Your task to perform on an android device: What's the weather going to be this weekend? Image 0: 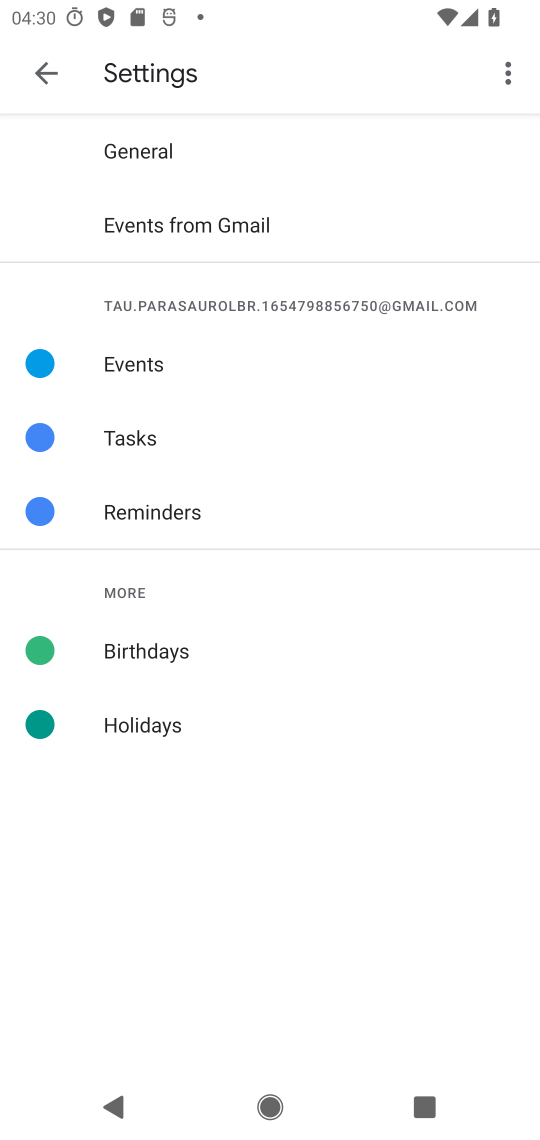
Step 0: press home button
Your task to perform on an android device: What's the weather going to be this weekend? Image 1: 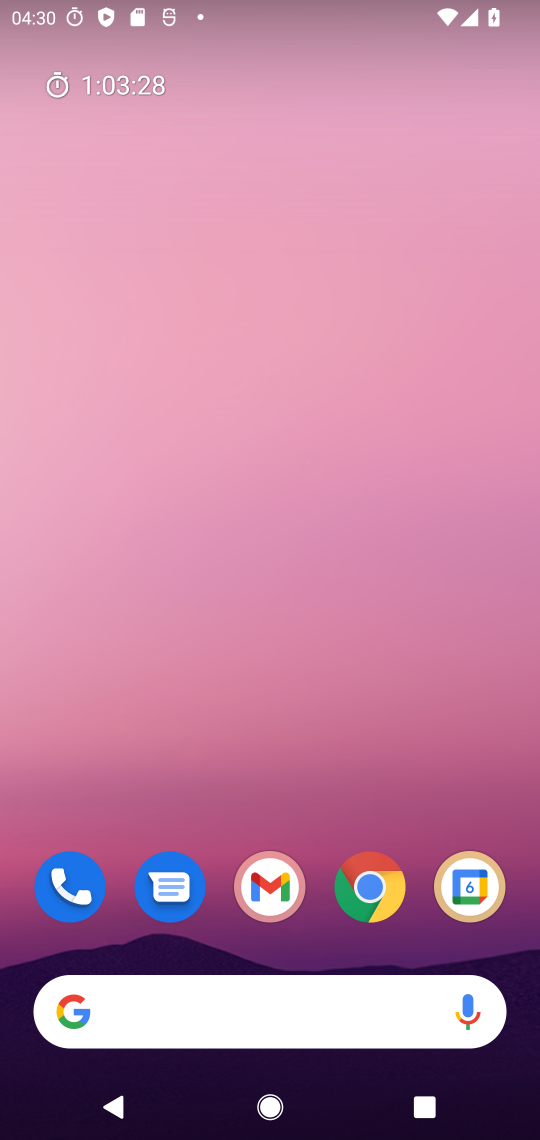
Step 1: click (322, 1009)
Your task to perform on an android device: What's the weather going to be this weekend? Image 2: 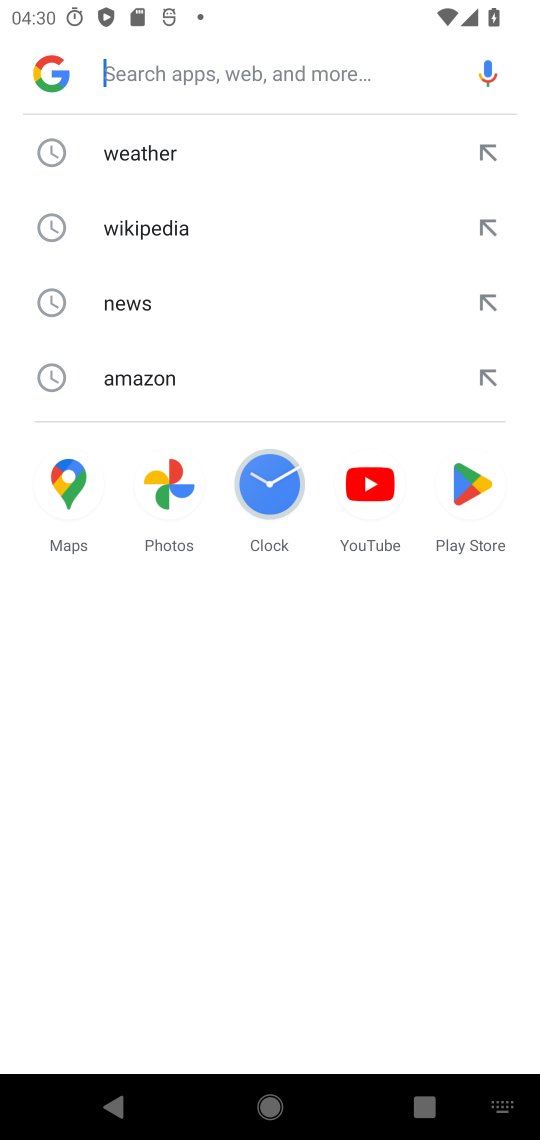
Step 2: click (171, 155)
Your task to perform on an android device: What's the weather going to be this weekend? Image 3: 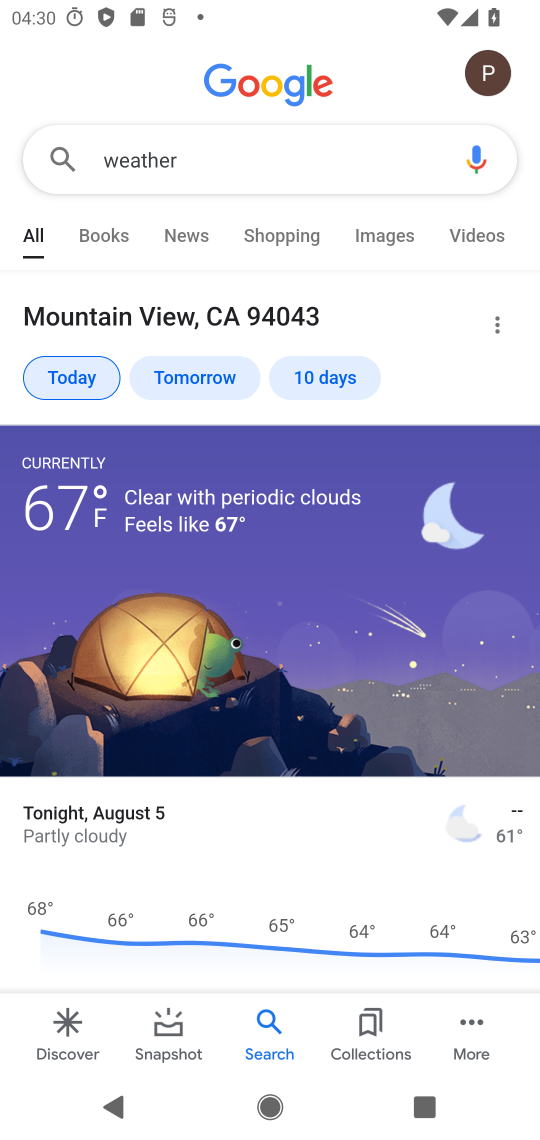
Step 3: click (319, 372)
Your task to perform on an android device: What's the weather going to be this weekend? Image 4: 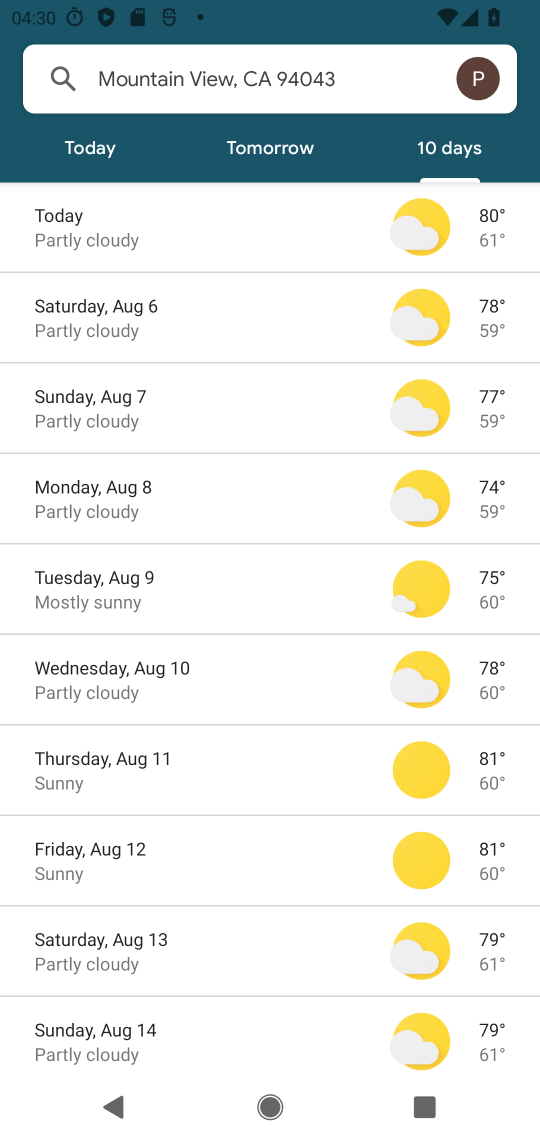
Step 4: click (186, 324)
Your task to perform on an android device: What's the weather going to be this weekend? Image 5: 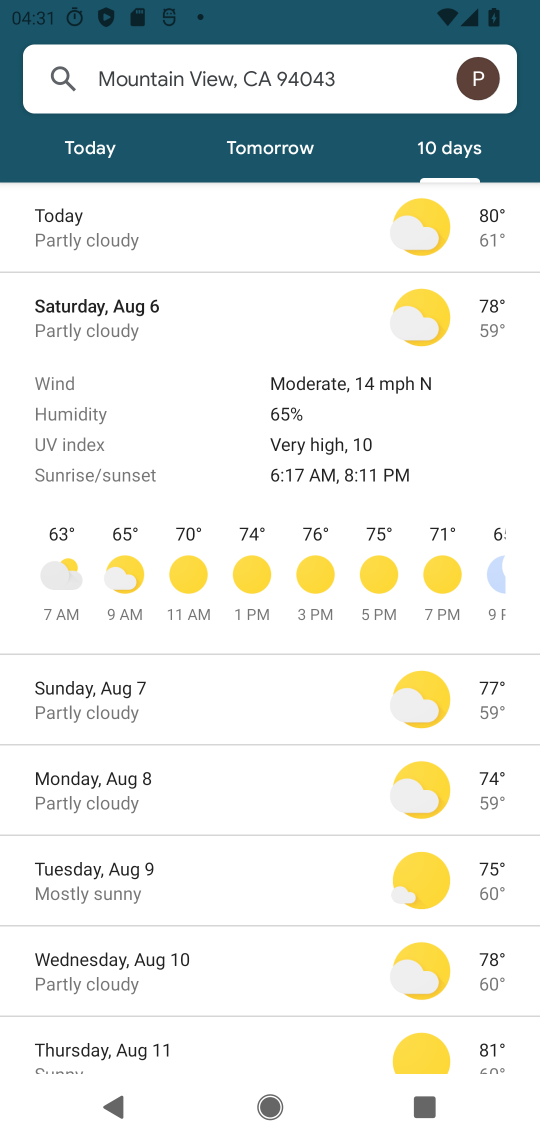
Step 5: task complete